Your task to perform on an android device: change alarm snooze length Image 0: 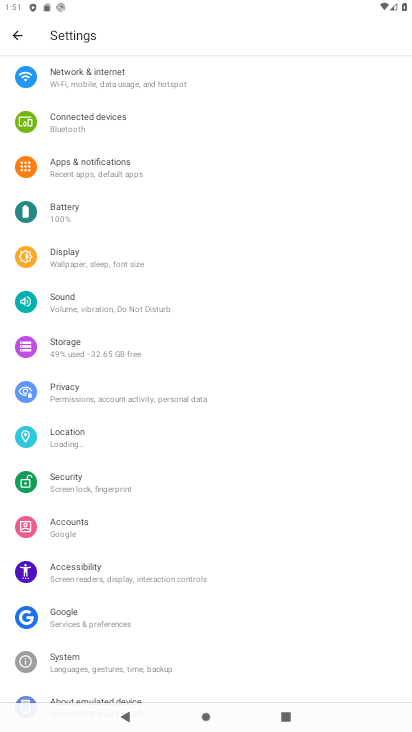
Step 0: press home button
Your task to perform on an android device: change alarm snooze length Image 1: 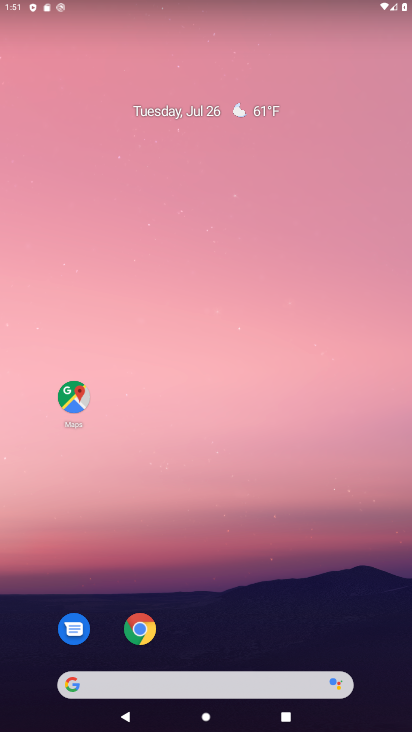
Step 1: drag from (223, 543) to (197, 57)
Your task to perform on an android device: change alarm snooze length Image 2: 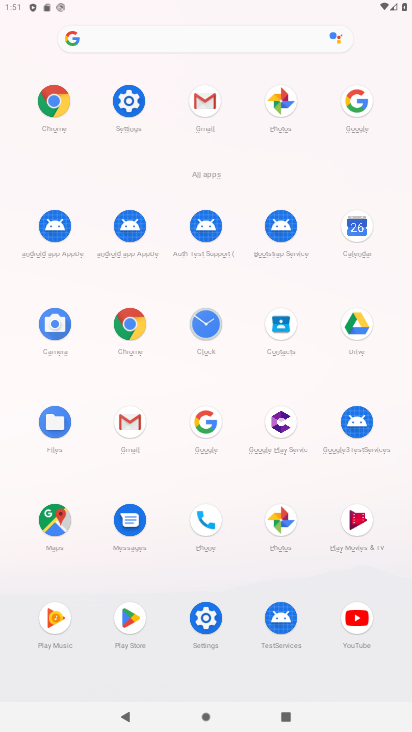
Step 2: click (201, 322)
Your task to perform on an android device: change alarm snooze length Image 3: 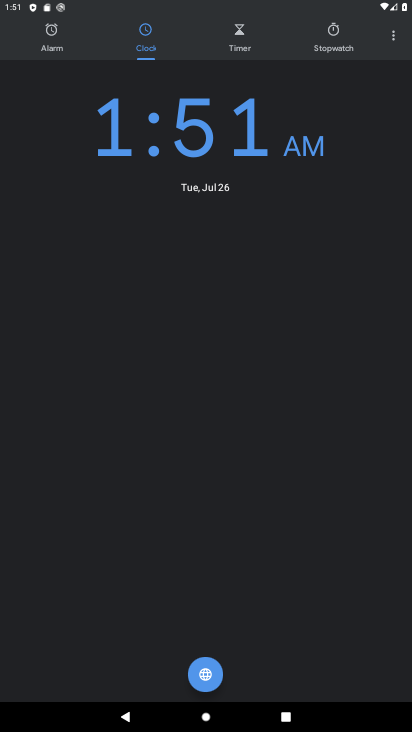
Step 3: click (396, 32)
Your task to perform on an android device: change alarm snooze length Image 4: 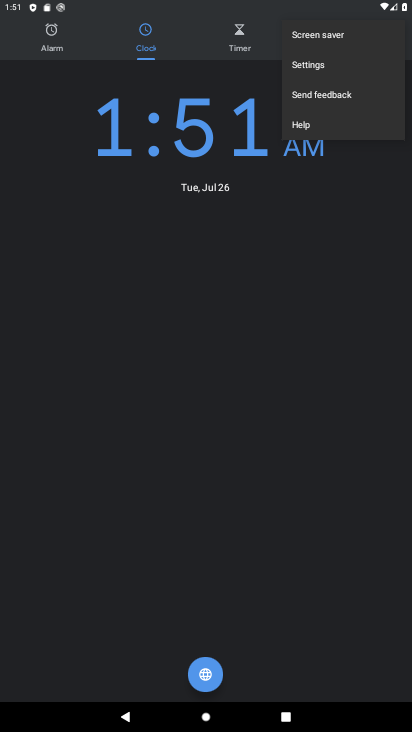
Step 4: click (307, 64)
Your task to perform on an android device: change alarm snooze length Image 5: 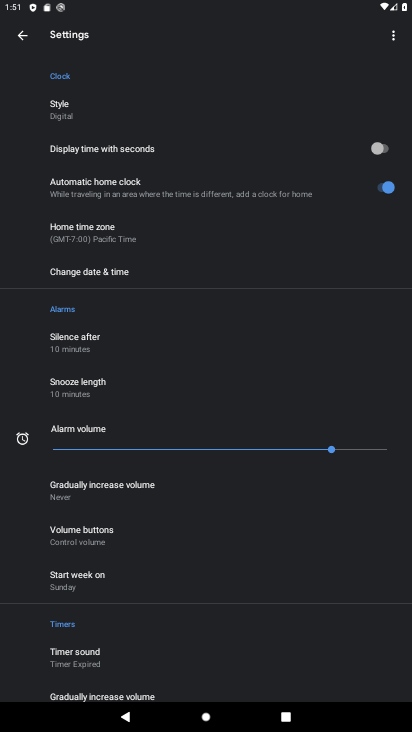
Step 5: click (72, 382)
Your task to perform on an android device: change alarm snooze length Image 6: 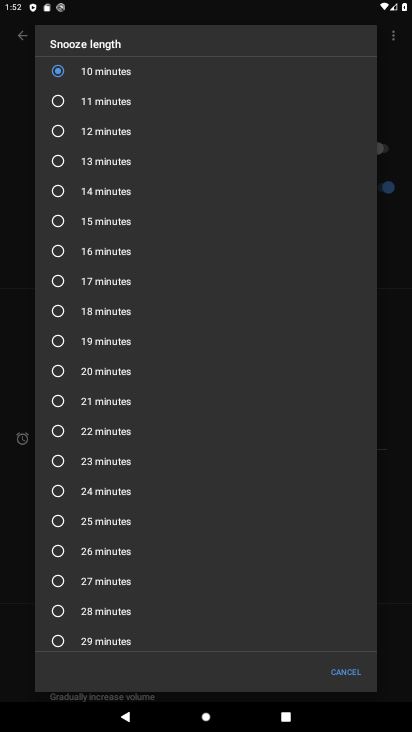
Step 6: click (59, 160)
Your task to perform on an android device: change alarm snooze length Image 7: 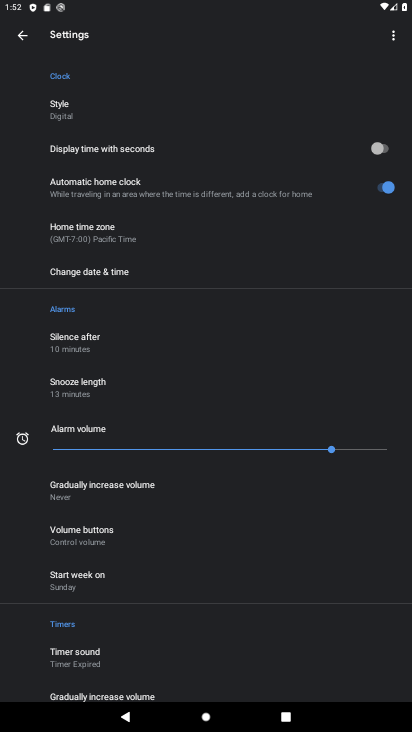
Step 7: task complete